Your task to perform on an android device: Open the web browser Image 0: 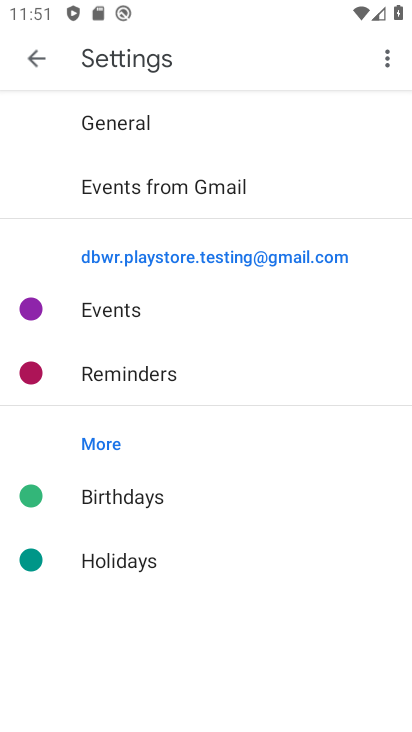
Step 0: press back button
Your task to perform on an android device: Open the web browser Image 1: 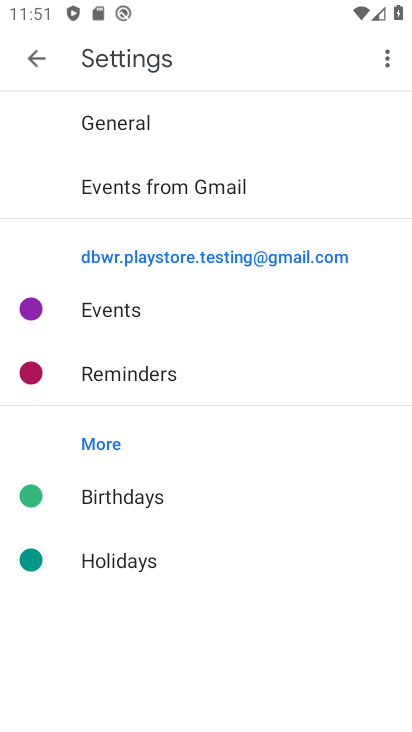
Step 1: press back button
Your task to perform on an android device: Open the web browser Image 2: 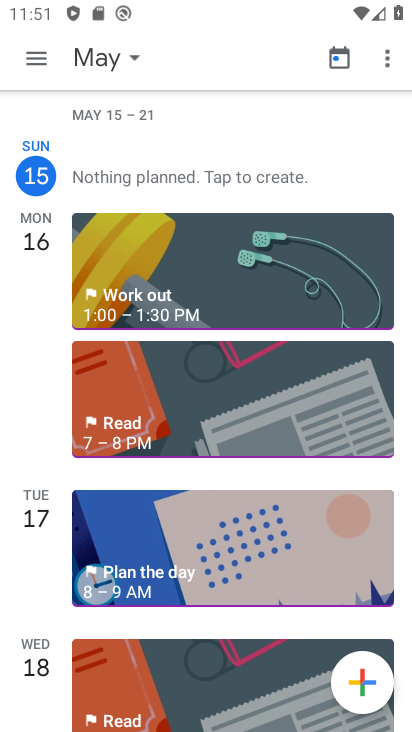
Step 2: press home button
Your task to perform on an android device: Open the web browser Image 3: 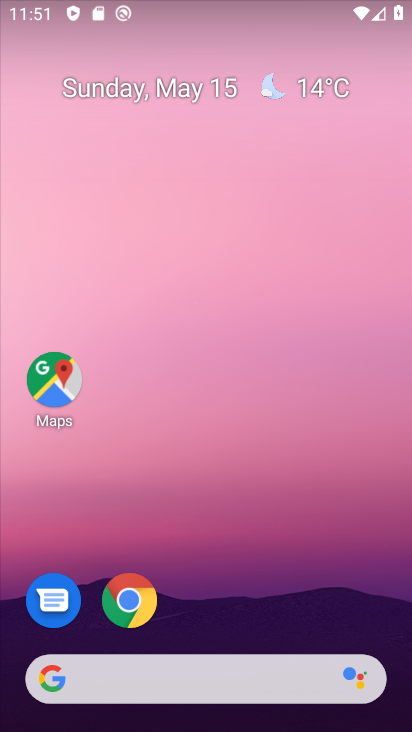
Step 3: drag from (226, 551) to (223, 18)
Your task to perform on an android device: Open the web browser Image 4: 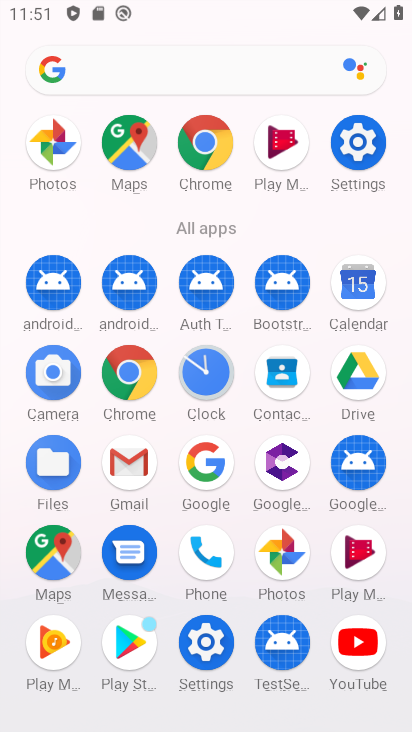
Step 4: click (120, 371)
Your task to perform on an android device: Open the web browser Image 5: 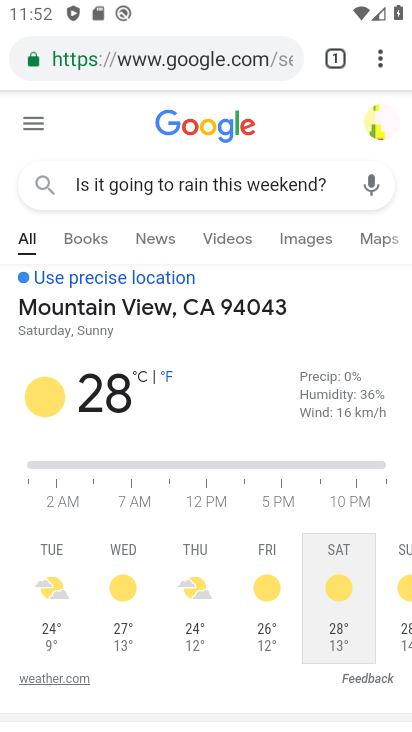
Step 5: task complete